Your task to perform on an android device: Open Youtube and go to "Your channel" Image 0: 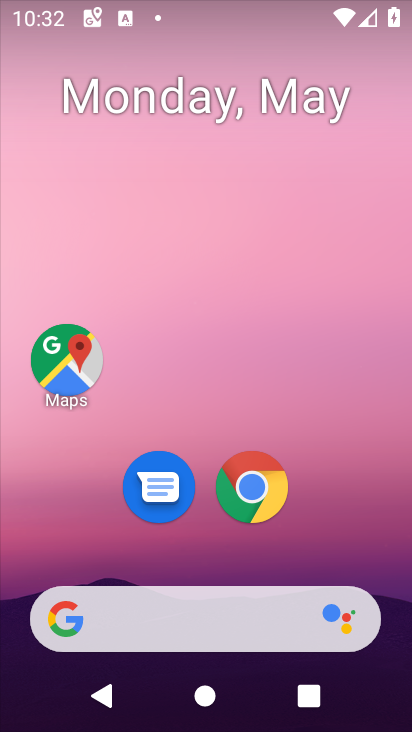
Step 0: drag from (310, 549) to (345, 98)
Your task to perform on an android device: Open Youtube and go to "Your channel" Image 1: 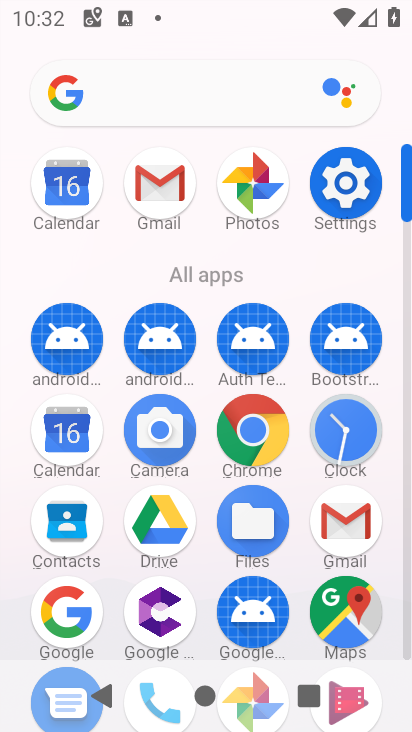
Step 1: drag from (226, 594) to (214, 141)
Your task to perform on an android device: Open Youtube and go to "Your channel" Image 2: 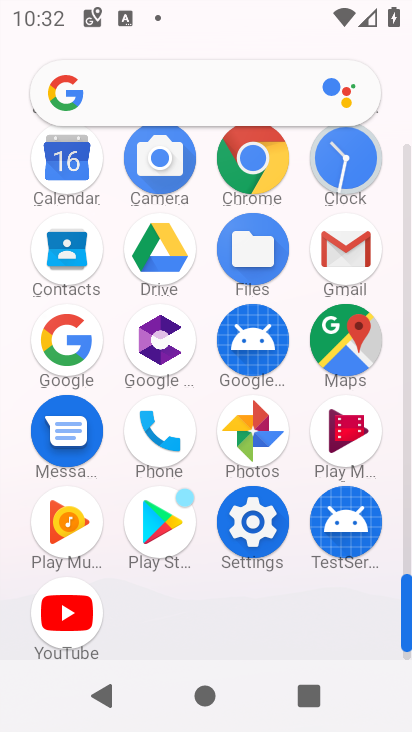
Step 2: click (61, 624)
Your task to perform on an android device: Open Youtube and go to "Your channel" Image 3: 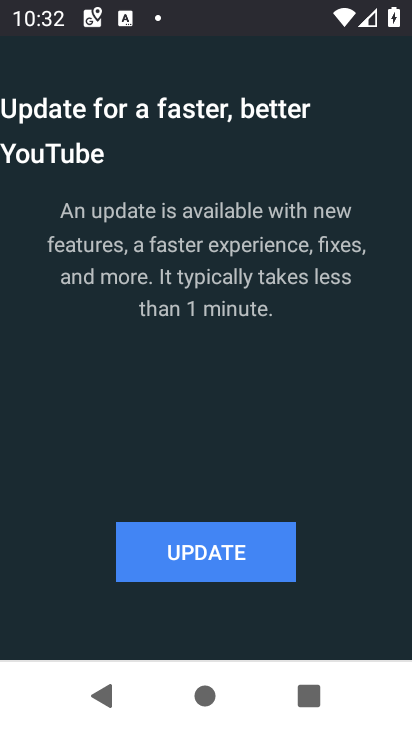
Step 3: click (213, 559)
Your task to perform on an android device: Open Youtube and go to "Your channel" Image 4: 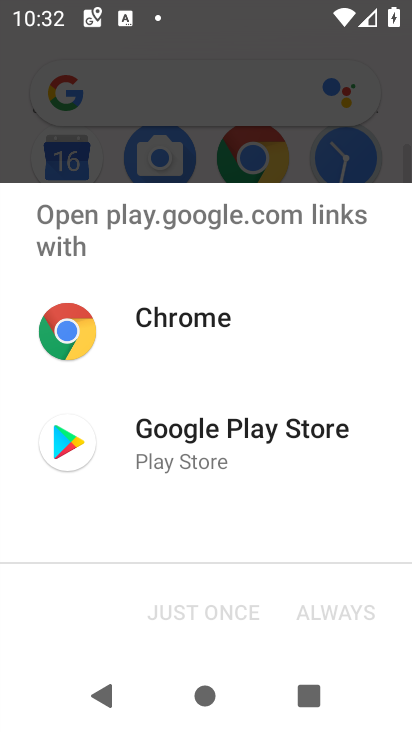
Step 4: click (171, 428)
Your task to perform on an android device: Open Youtube and go to "Your channel" Image 5: 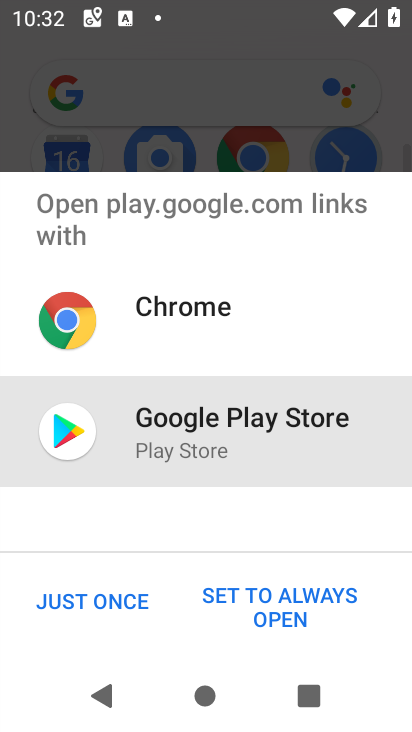
Step 5: click (171, 428)
Your task to perform on an android device: Open Youtube and go to "Your channel" Image 6: 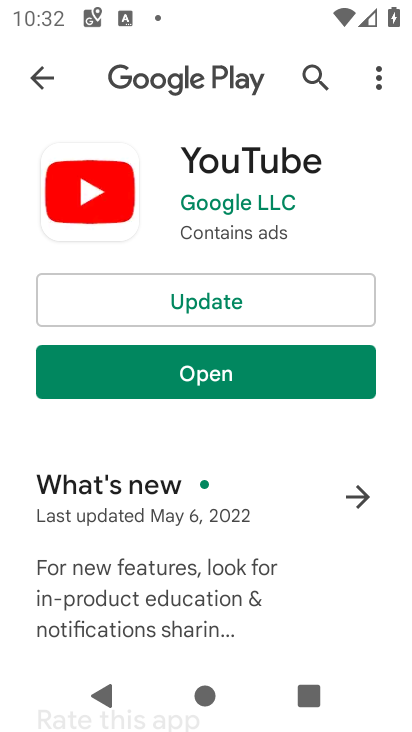
Step 6: click (278, 302)
Your task to perform on an android device: Open Youtube and go to "Your channel" Image 7: 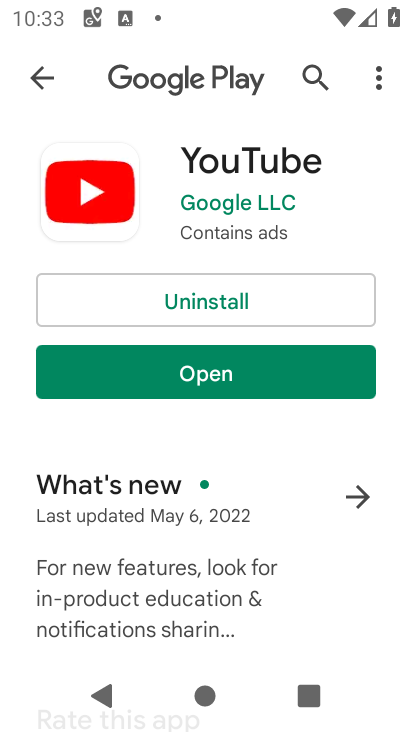
Step 7: click (168, 365)
Your task to perform on an android device: Open Youtube and go to "Your channel" Image 8: 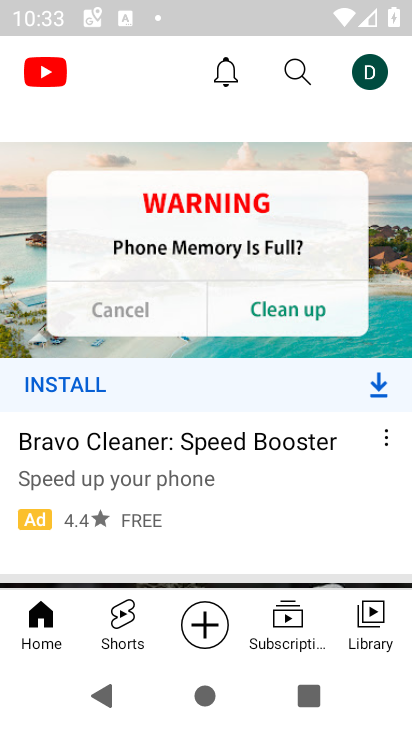
Step 8: click (383, 72)
Your task to perform on an android device: Open Youtube and go to "Your channel" Image 9: 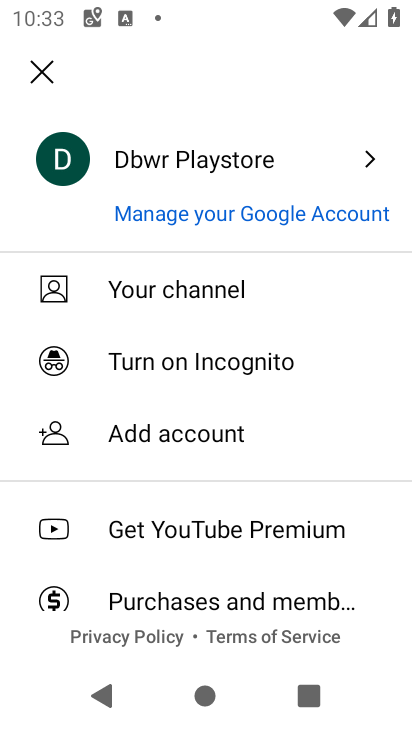
Step 9: click (198, 305)
Your task to perform on an android device: Open Youtube and go to "Your channel" Image 10: 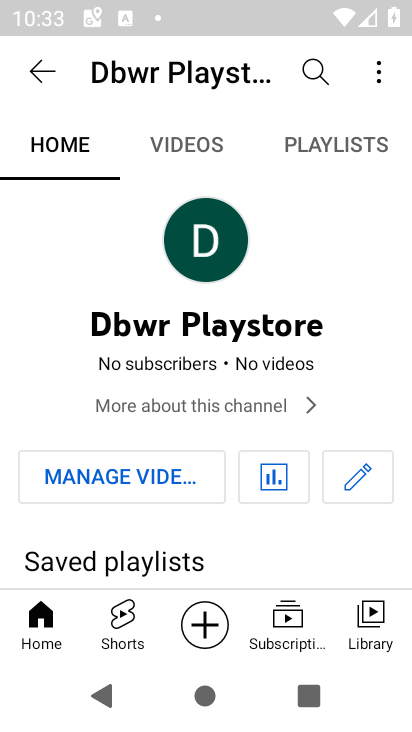
Step 10: task complete